Your task to perform on an android device: change notification settings in the gmail app Image 0: 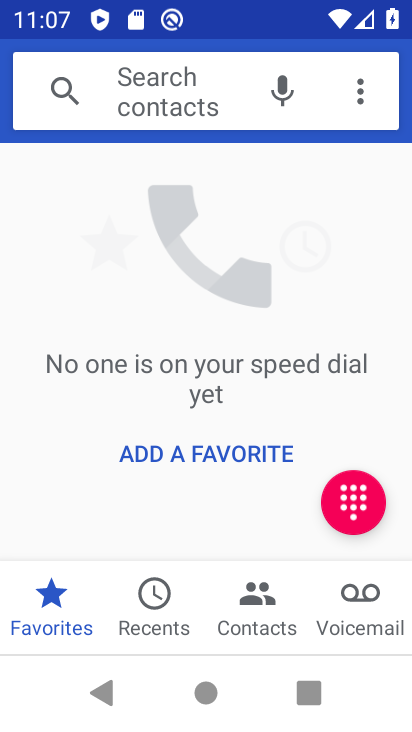
Step 0: press home button
Your task to perform on an android device: change notification settings in the gmail app Image 1: 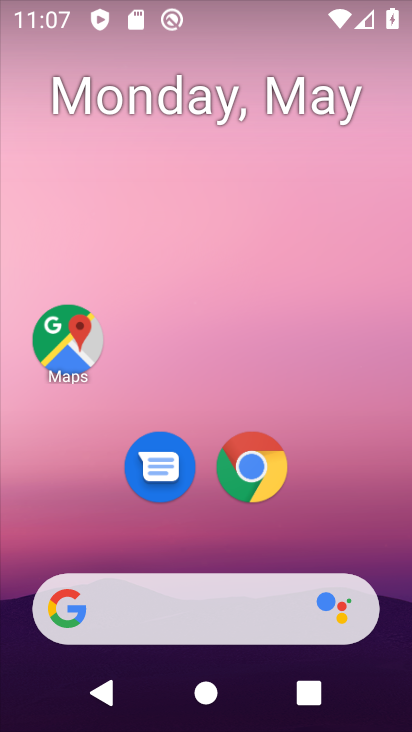
Step 1: drag from (355, 534) to (309, 93)
Your task to perform on an android device: change notification settings in the gmail app Image 2: 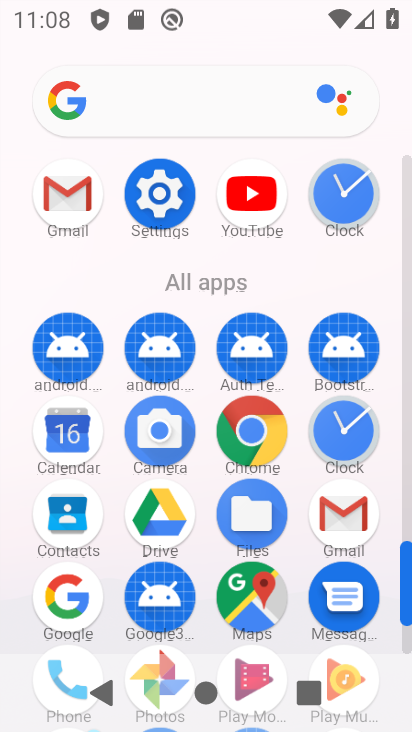
Step 2: click (80, 222)
Your task to perform on an android device: change notification settings in the gmail app Image 3: 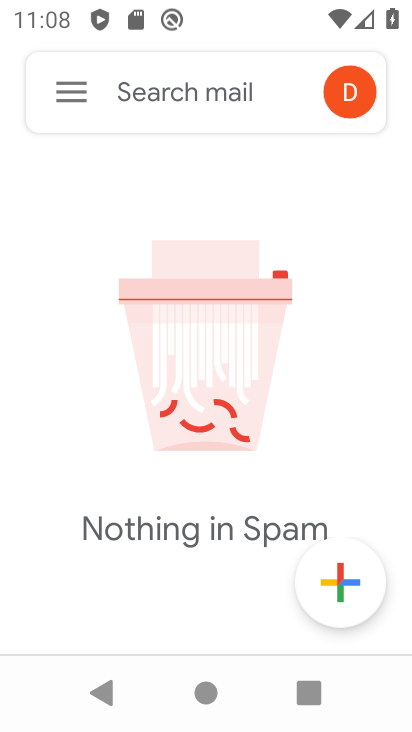
Step 3: click (61, 116)
Your task to perform on an android device: change notification settings in the gmail app Image 4: 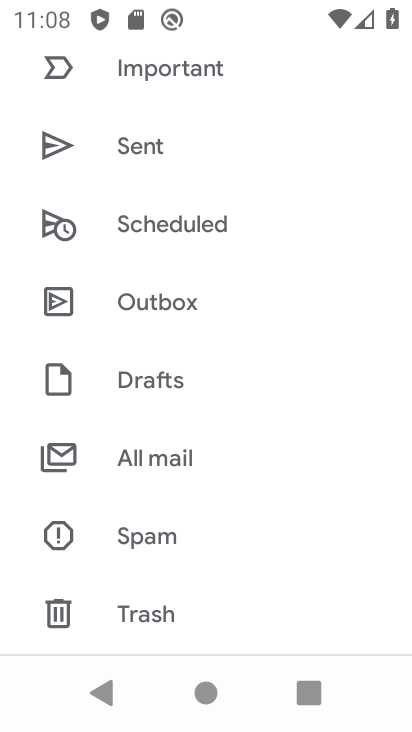
Step 4: drag from (145, 564) to (146, 207)
Your task to perform on an android device: change notification settings in the gmail app Image 5: 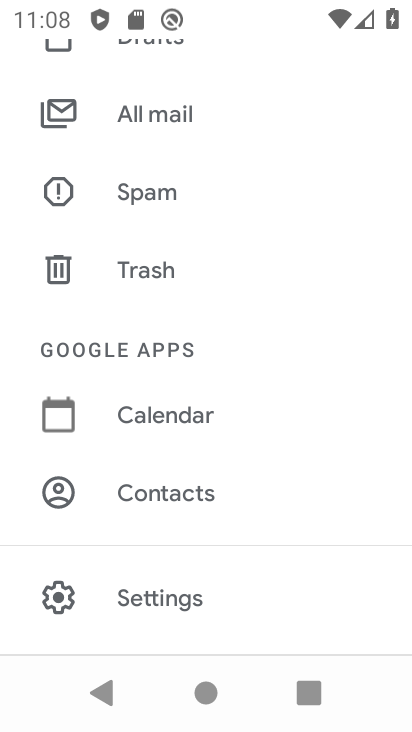
Step 5: click (204, 596)
Your task to perform on an android device: change notification settings in the gmail app Image 6: 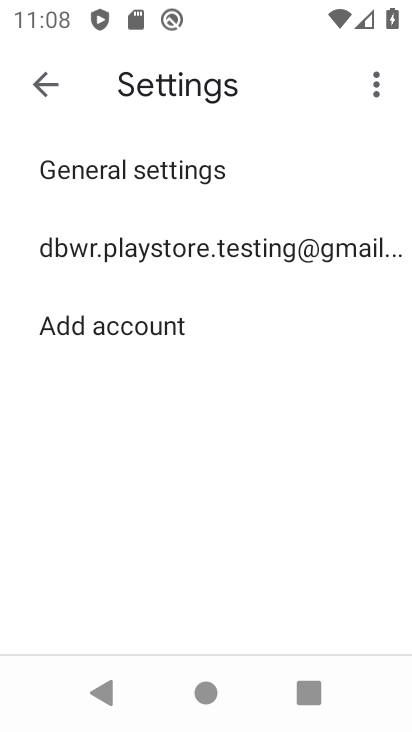
Step 6: click (151, 176)
Your task to perform on an android device: change notification settings in the gmail app Image 7: 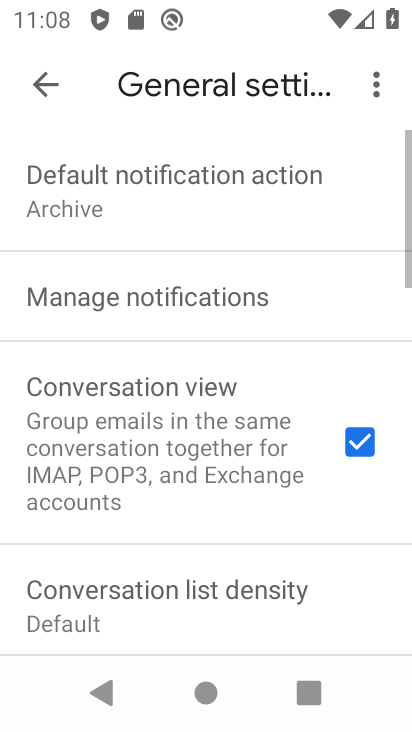
Step 7: click (124, 295)
Your task to perform on an android device: change notification settings in the gmail app Image 8: 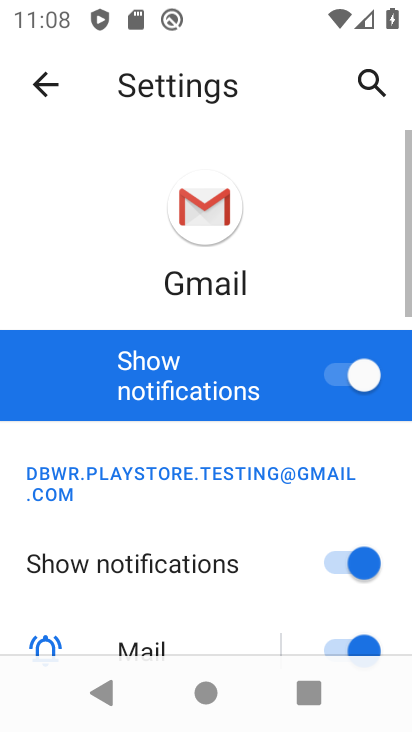
Step 8: task complete